Your task to perform on an android device: turn off javascript in the chrome app Image 0: 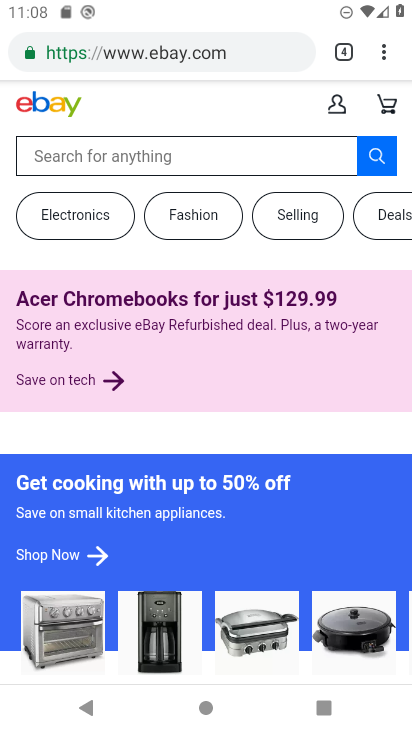
Step 0: press home button
Your task to perform on an android device: turn off javascript in the chrome app Image 1: 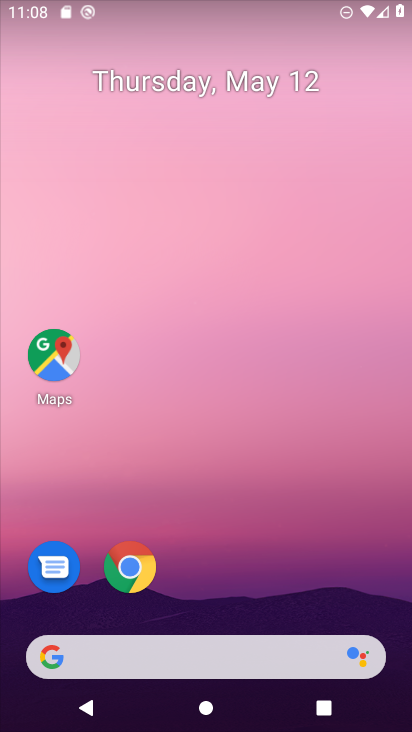
Step 1: drag from (220, 594) to (276, 146)
Your task to perform on an android device: turn off javascript in the chrome app Image 2: 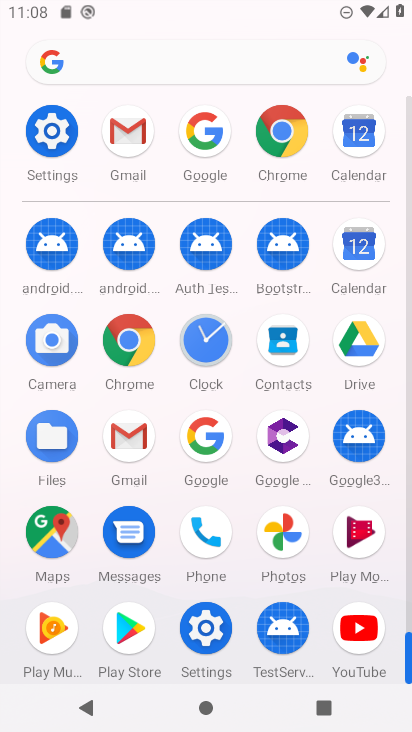
Step 2: click (289, 139)
Your task to perform on an android device: turn off javascript in the chrome app Image 3: 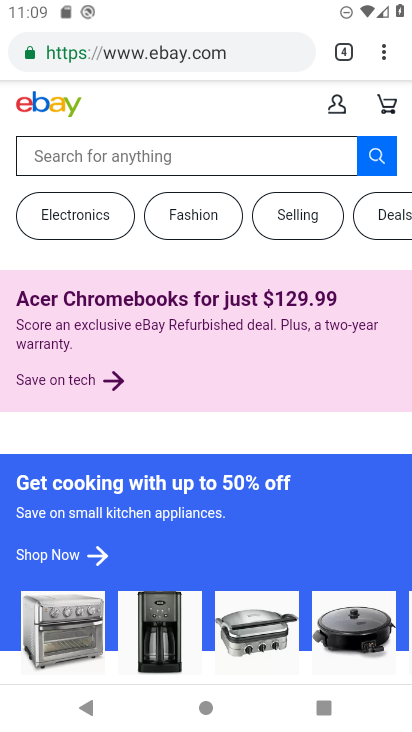
Step 3: click (381, 57)
Your task to perform on an android device: turn off javascript in the chrome app Image 4: 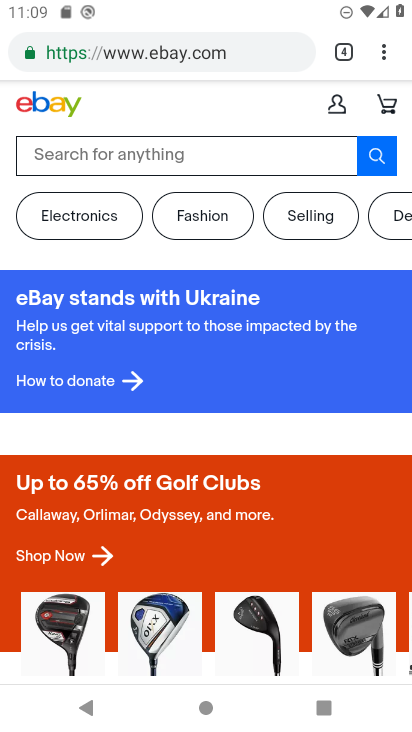
Step 4: click (384, 51)
Your task to perform on an android device: turn off javascript in the chrome app Image 5: 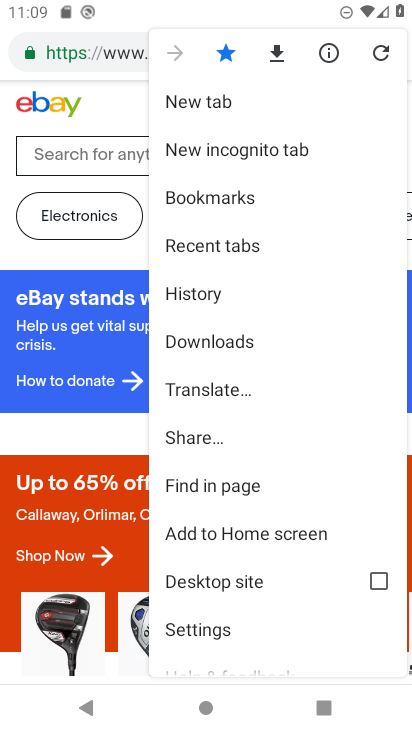
Step 5: click (271, 623)
Your task to perform on an android device: turn off javascript in the chrome app Image 6: 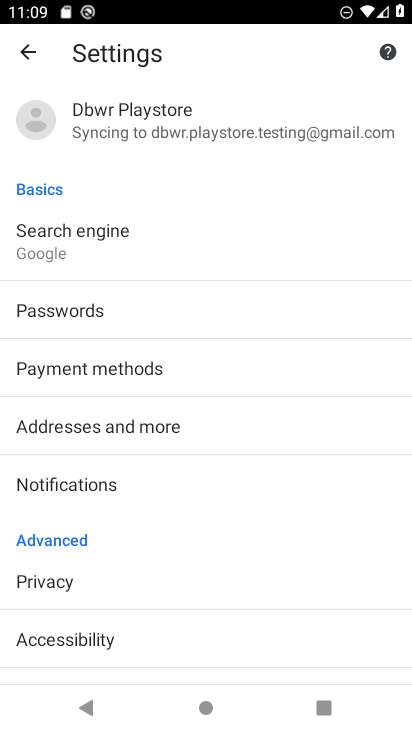
Step 6: drag from (239, 518) to (213, 241)
Your task to perform on an android device: turn off javascript in the chrome app Image 7: 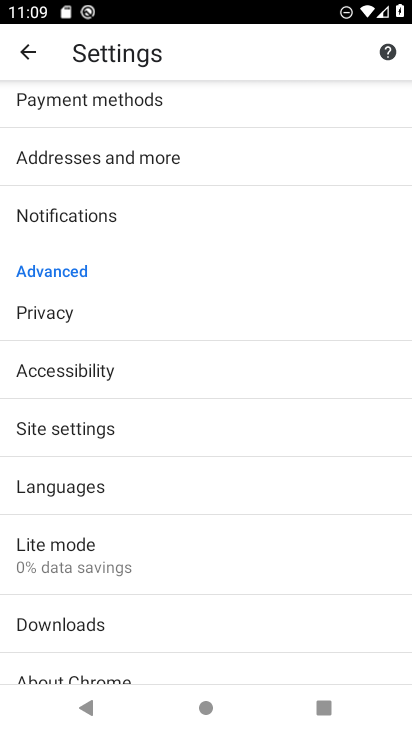
Step 7: click (125, 433)
Your task to perform on an android device: turn off javascript in the chrome app Image 8: 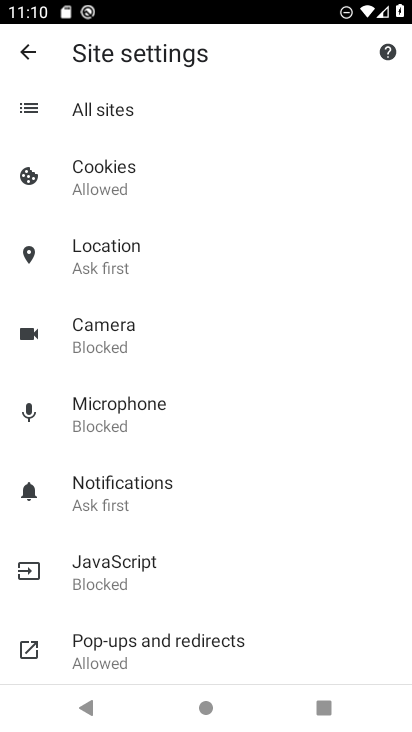
Step 8: click (145, 560)
Your task to perform on an android device: turn off javascript in the chrome app Image 9: 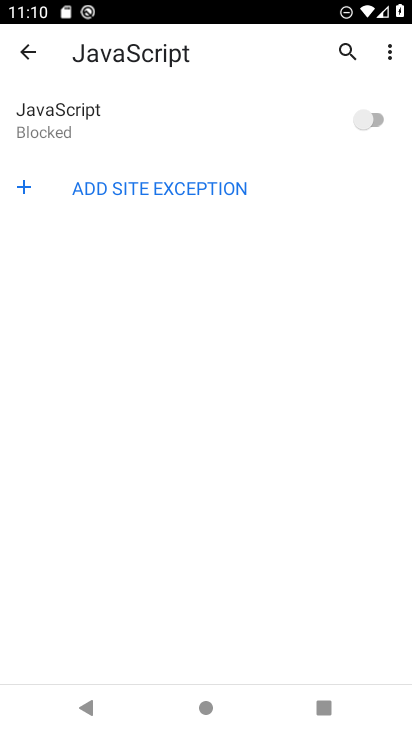
Step 9: task complete